Your task to perform on an android device: open chrome privacy settings Image 0: 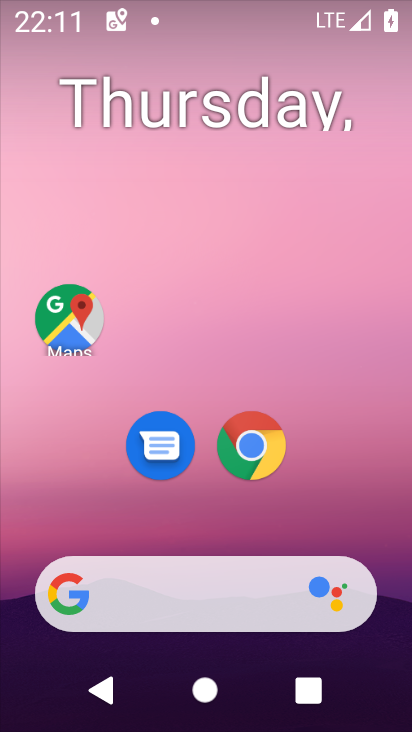
Step 0: drag from (245, 530) to (218, 196)
Your task to perform on an android device: open chrome privacy settings Image 1: 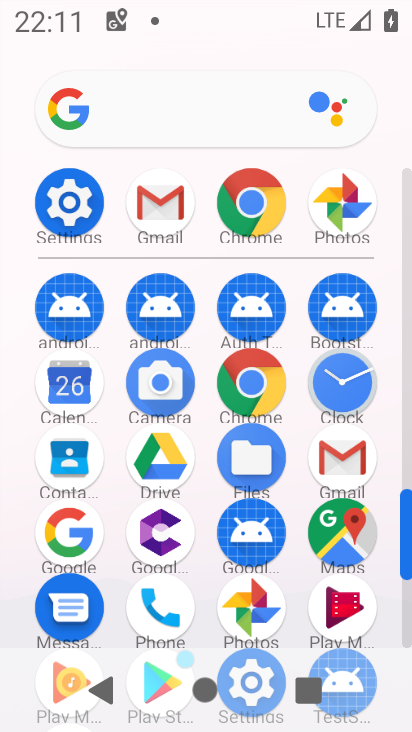
Step 1: drag from (205, 270) to (202, 100)
Your task to perform on an android device: open chrome privacy settings Image 2: 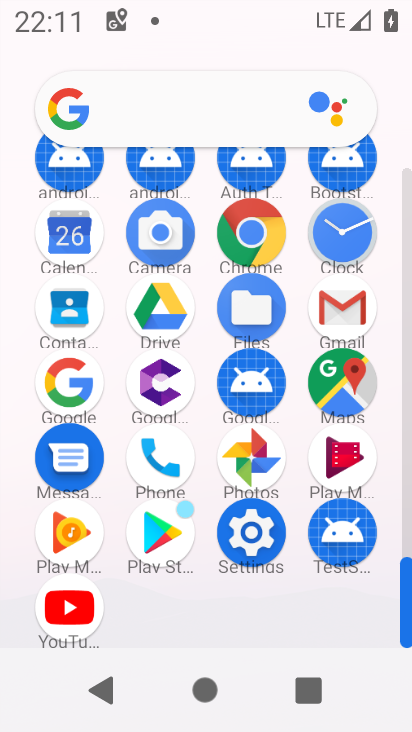
Step 2: click (248, 538)
Your task to perform on an android device: open chrome privacy settings Image 3: 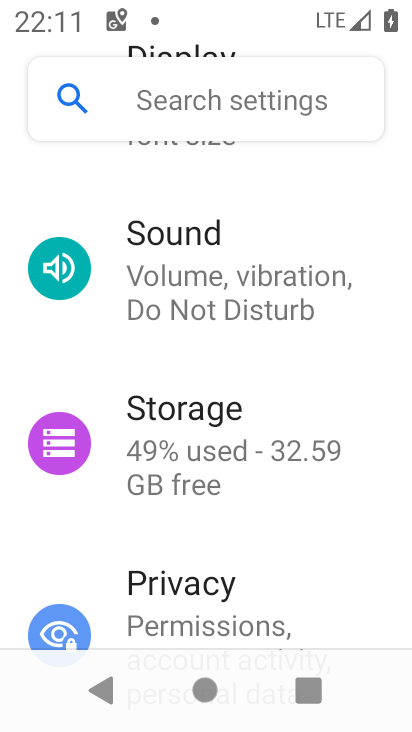
Step 3: click (231, 595)
Your task to perform on an android device: open chrome privacy settings Image 4: 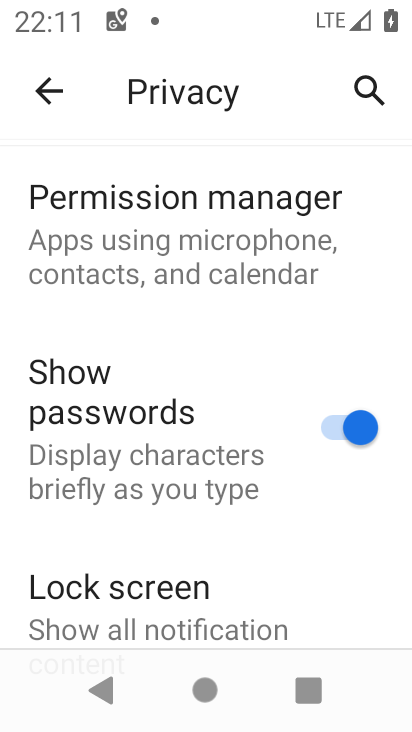
Step 4: task complete